Your task to perform on an android device: turn notification dots off Image 0: 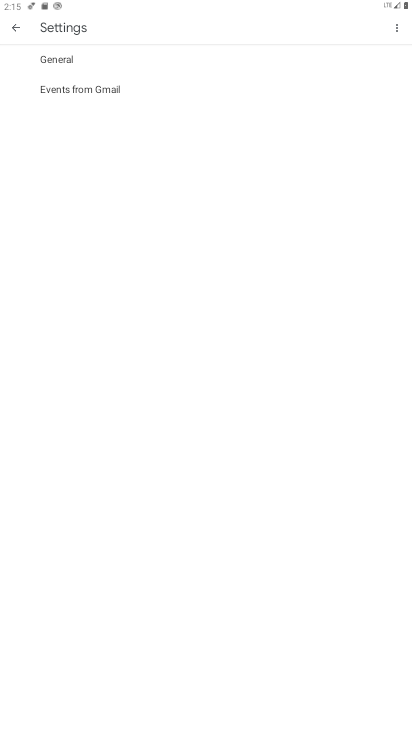
Step 0: drag from (258, 667) to (209, 0)
Your task to perform on an android device: turn notification dots off Image 1: 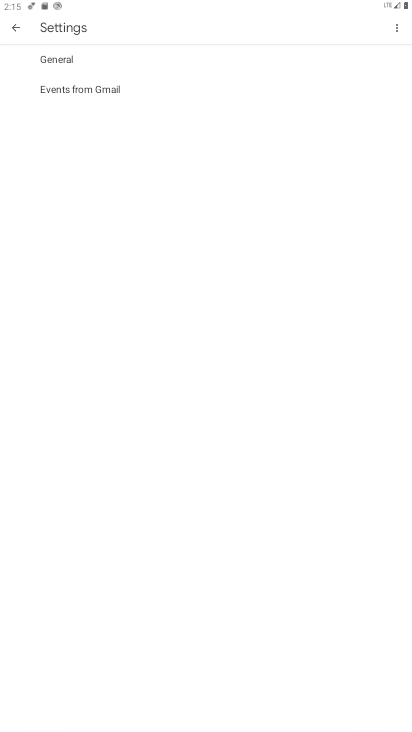
Step 1: click (12, 29)
Your task to perform on an android device: turn notification dots off Image 2: 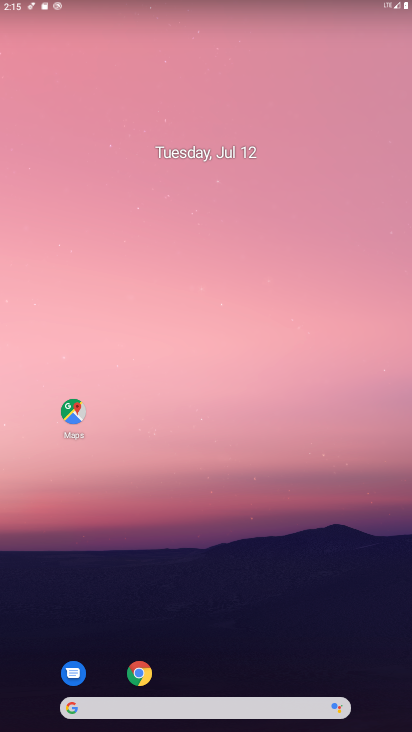
Step 2: drag from (248, 658) to (194, 108)
Your task to perform on an android device: turn notification dots off Image 3: 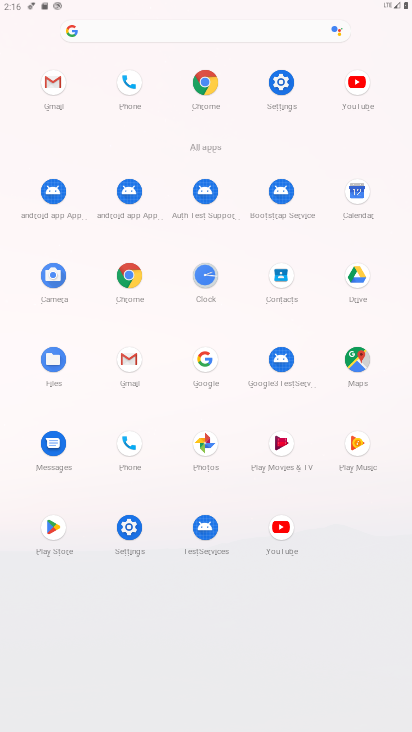
Step 3: click (137, 529)
Your task to perform on an android device: turn notification dots off Image 4: 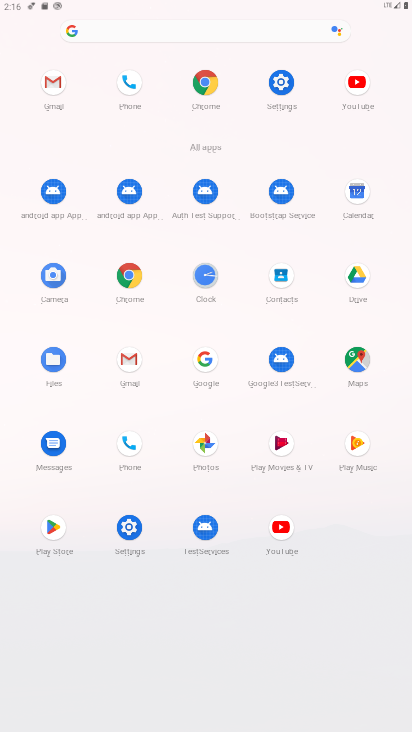
Step 4: click (130, 532)
Your task to perform on an android device: turn notification dots off Image 5: 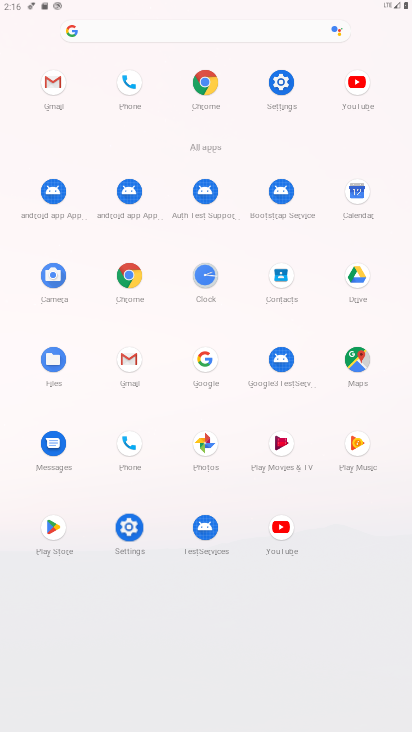
Step 5: click (130, 519)
Your task to perform on an android device: turn notification dots off Image 6: 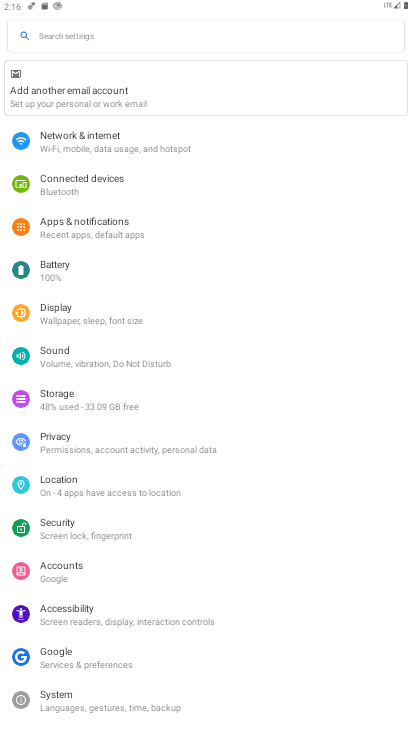
Step 6: click (89, 226)
Your task to perform on an android device: turn notification dots off Image 7: 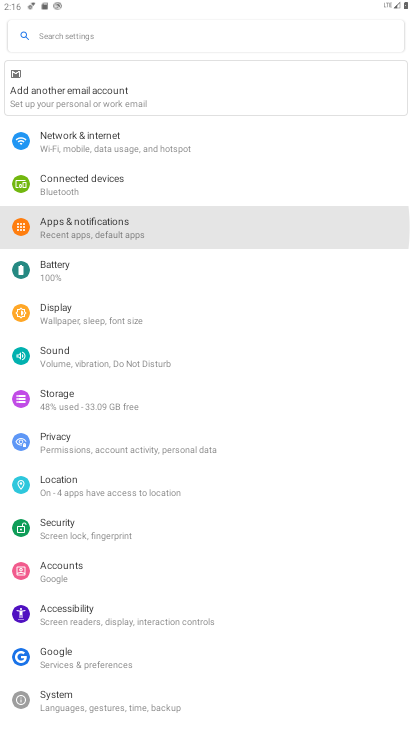
Step 7: click (94, 229)
Your task to perform on an android device: turn notification dots off Image 8: 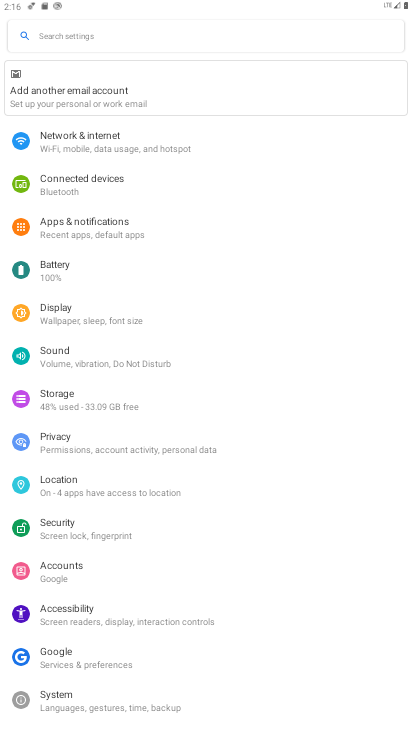
Step 8: click (95, 230)
Your task to perform on an android device: turn notification dots off Image 9: 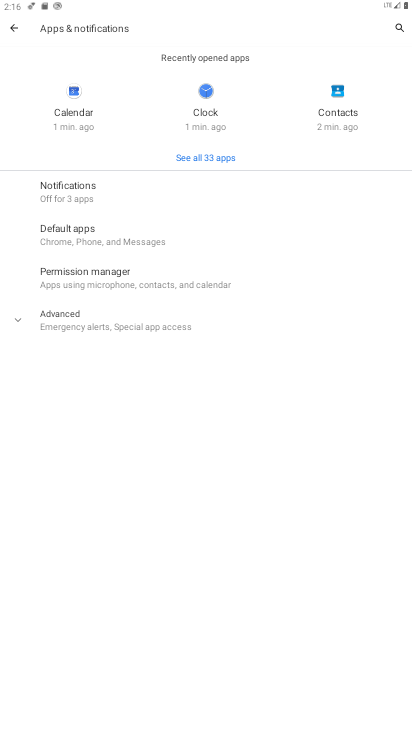
Step 9: click (64, 189)
Your task to perform on an android device: turn notification dots off Image 10: 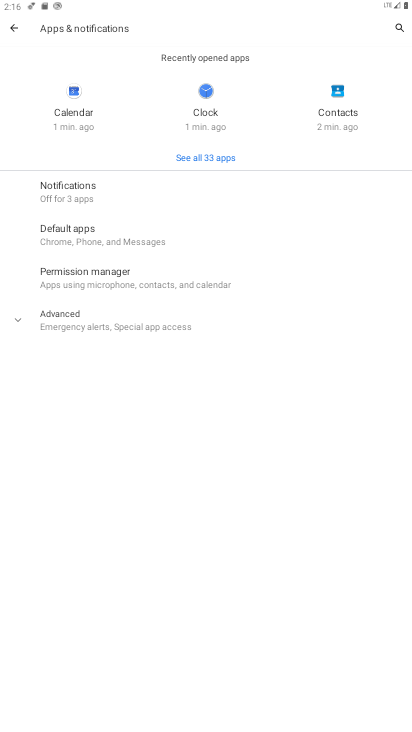
Step 10: click (64, 189)
Your task to perform on an android device: turn notification dots off Image 11: 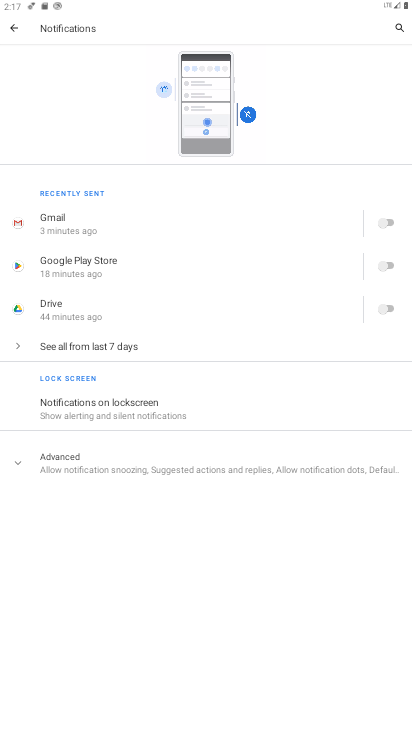
Step 11: click (60, 468)
Your task to perform on an android device: turn notification dots off Image 12: 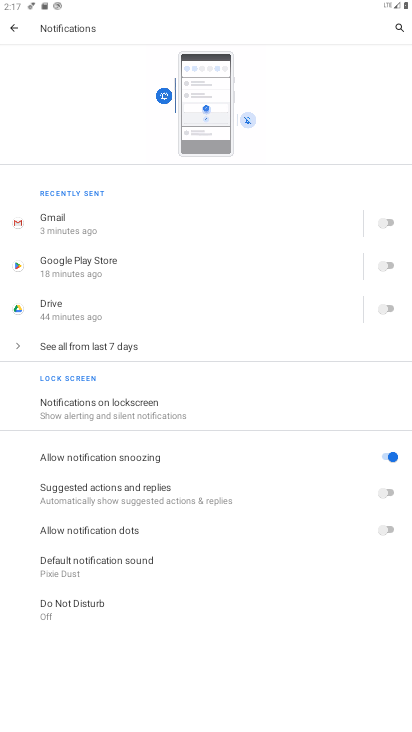
Step 12: task complete